Your task to perform on an android device: Go to internet settings Image 0: 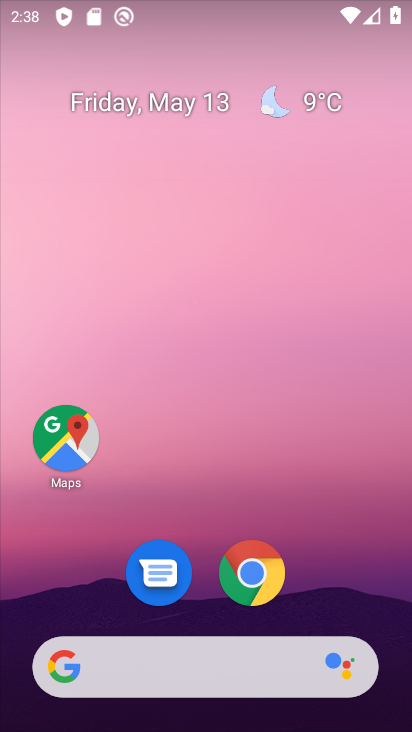
Step 0: drag from (324, 594) to (248, 89)
Your task to perform on an android device: Go to internet settings Image 1: 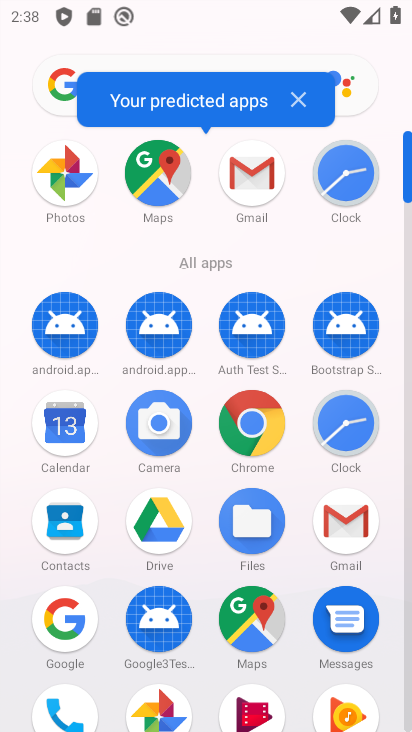
Step 1: drag from (205, 634) to (214, 231)
Your task to perform on an android device: Go to internet settings Image 2: 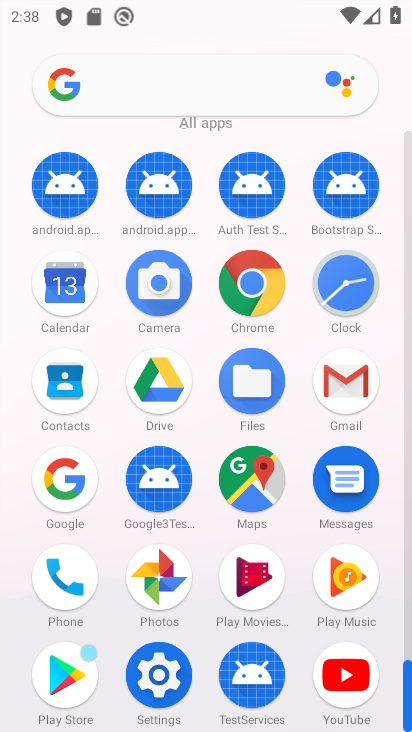
Step 2: click (155, 675)
Your task to perform on an android device: Go to internet settings Image 3: 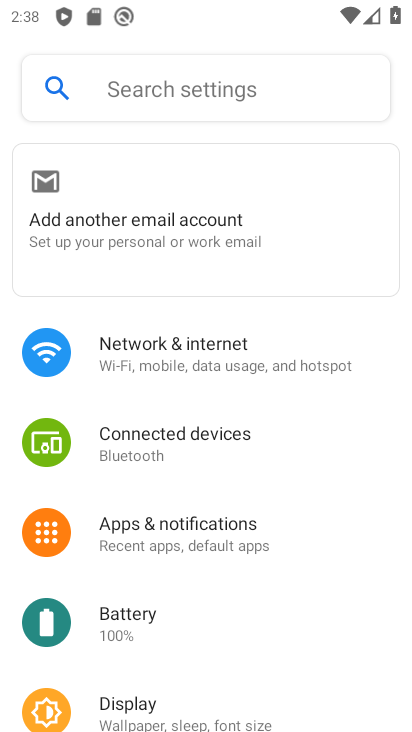
Step 3: click (173, 366)
Your task to perform on an android device: Go to internet settings Image 4: 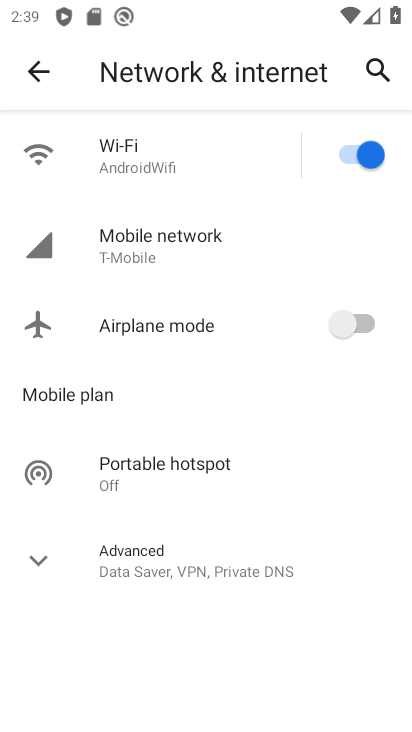
Step 4: task complete